Your task to perform on an android device: Search for "logitech g pro" on costco.com, select the first entry, add it to the cart, then select checkout. Image 0: 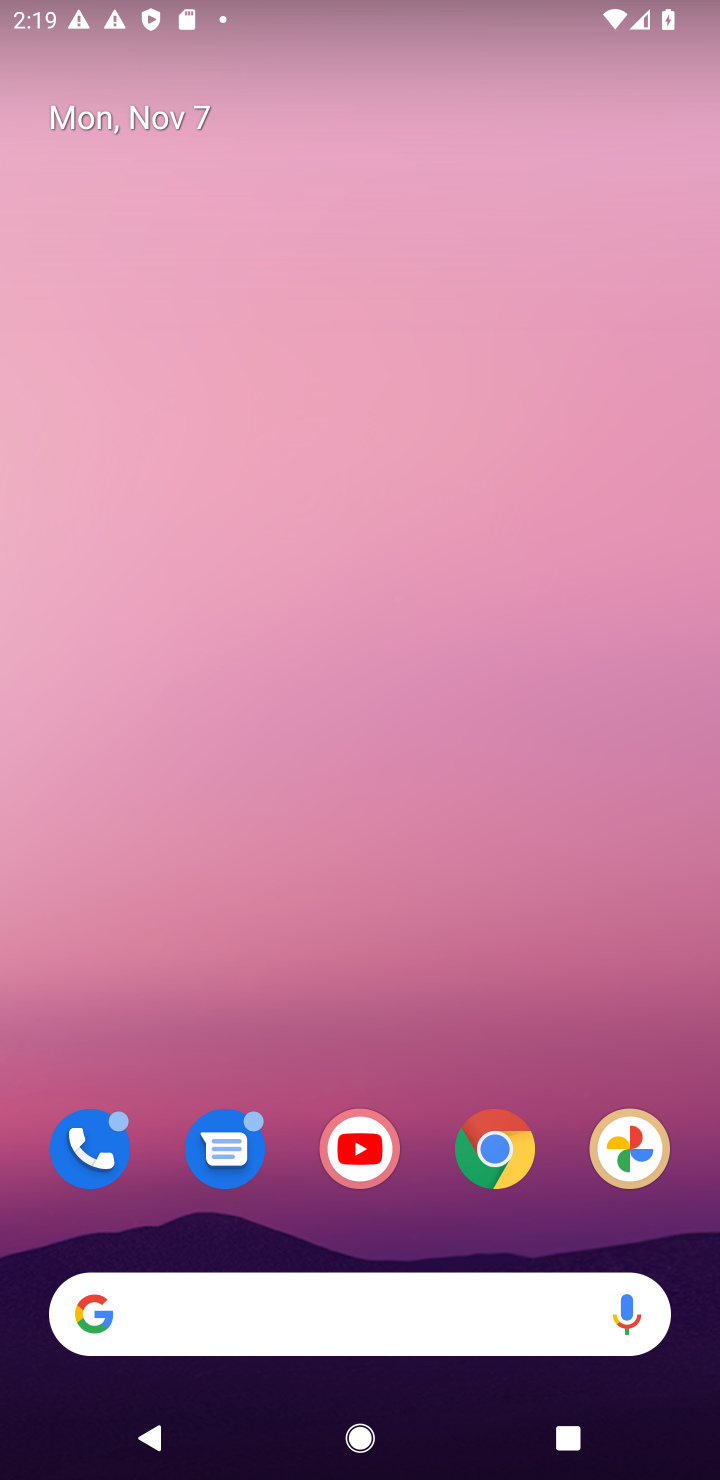
Step 0: click (510, 1144)
Your task to perform on an android device: Search for "logitech g pro" on costco.com, select the first entry, add it to the cart, then select checkout. Image 1: 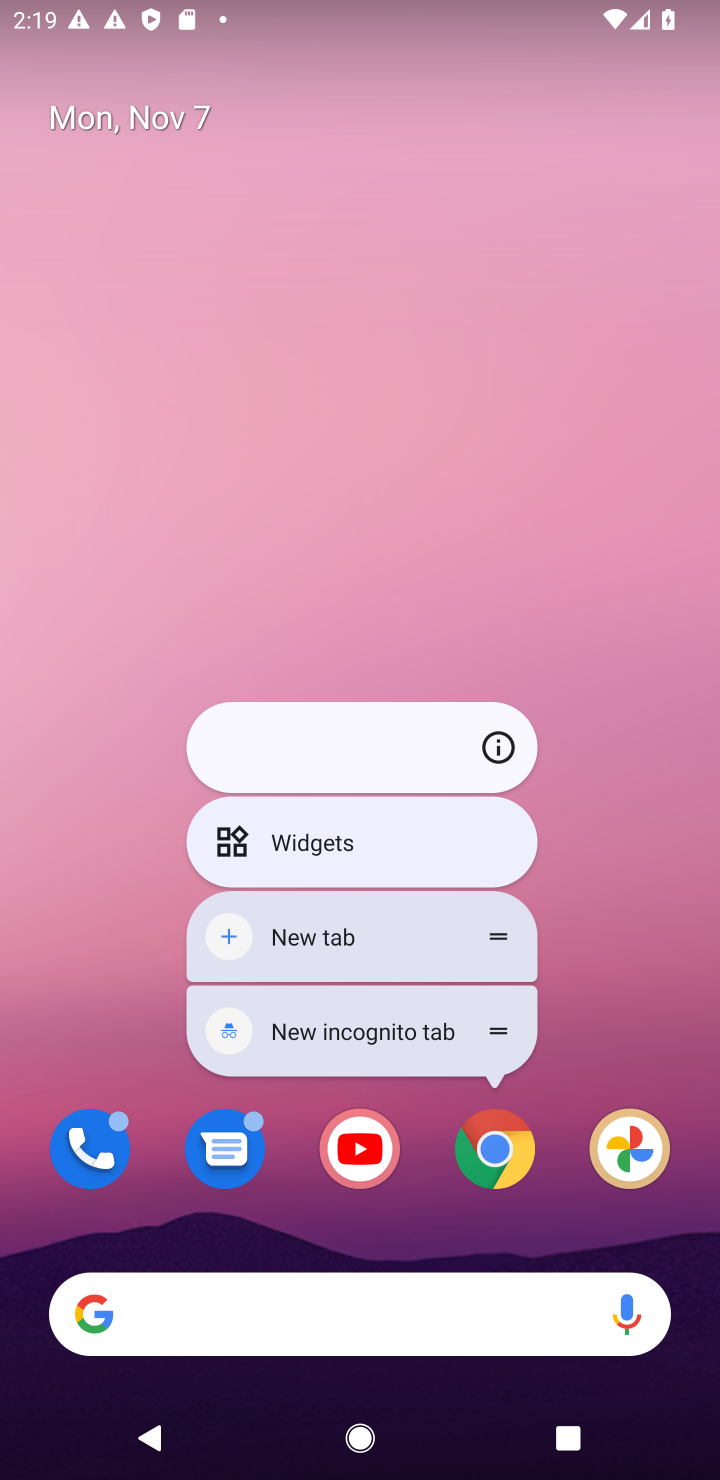
Step 1: click (506, 1144)
Your task to perform on an android device: Search for "logitech g pro" on costco.com, select the first entry, add it to the cart, then select checkout. Image 2: 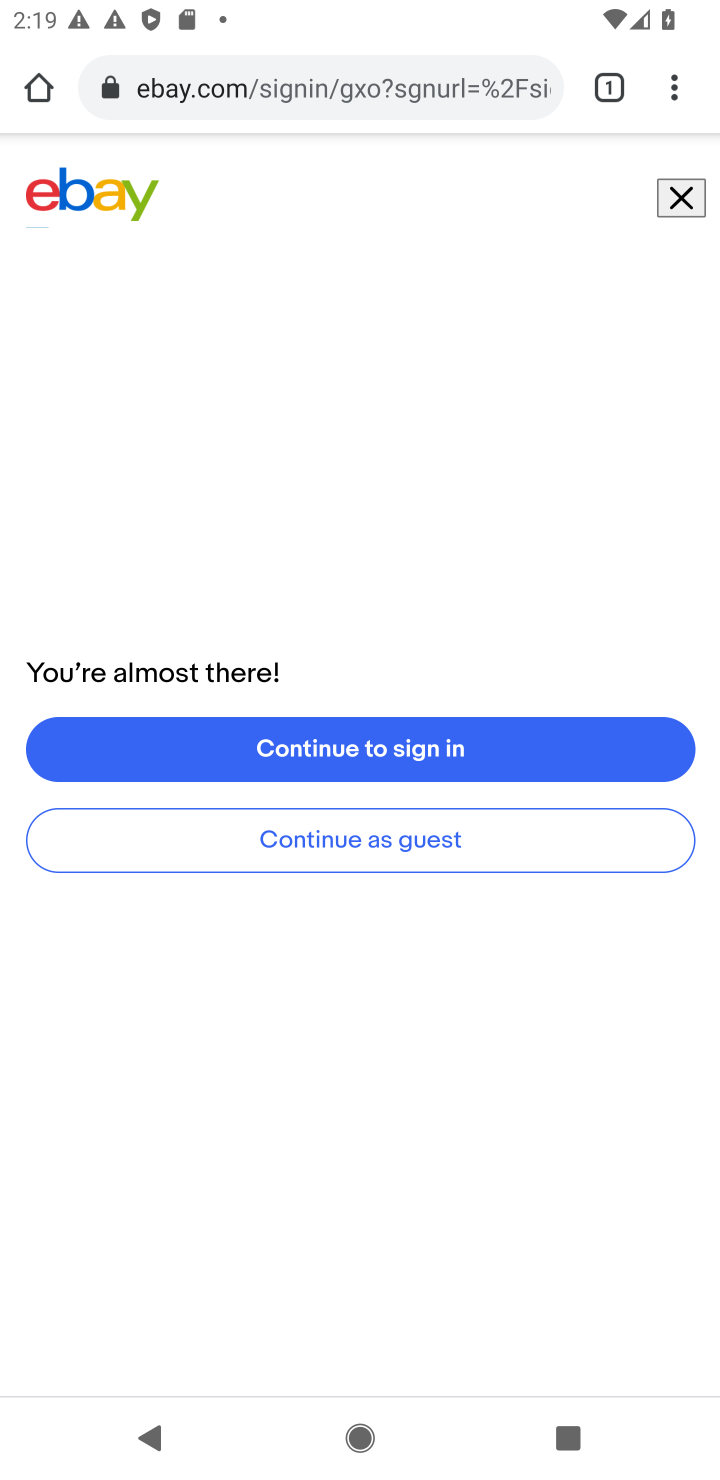
Step 2: click (326, 76)
Your task to perform on an android device: Search for "logitech g pro" on costco.com, select the first entry, add it to the cart, then select checkout. Image 3: 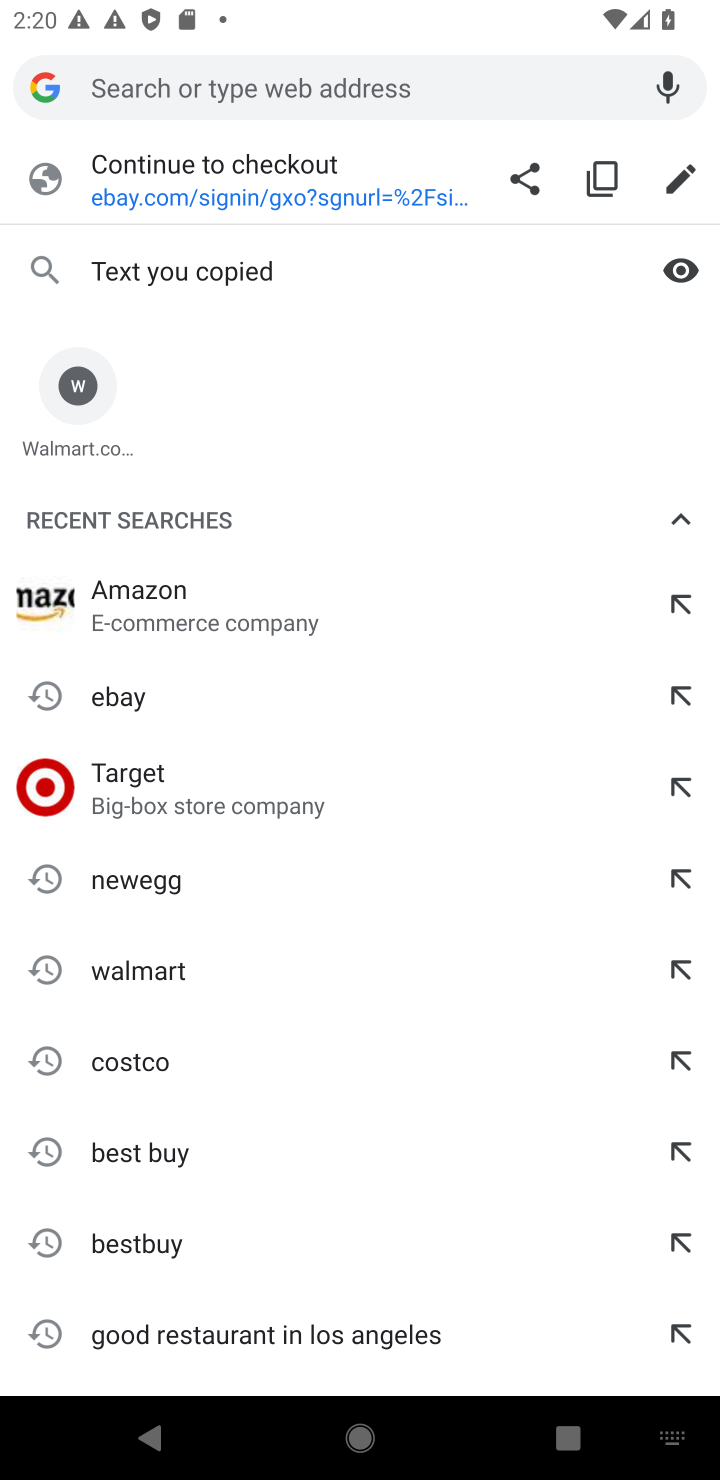
Step 3: type "costco"
Your task to perform on an android device: Search for "logitech g pro" on costco.com, select the first entry, add it to the cart, then select checkout. Image 4: 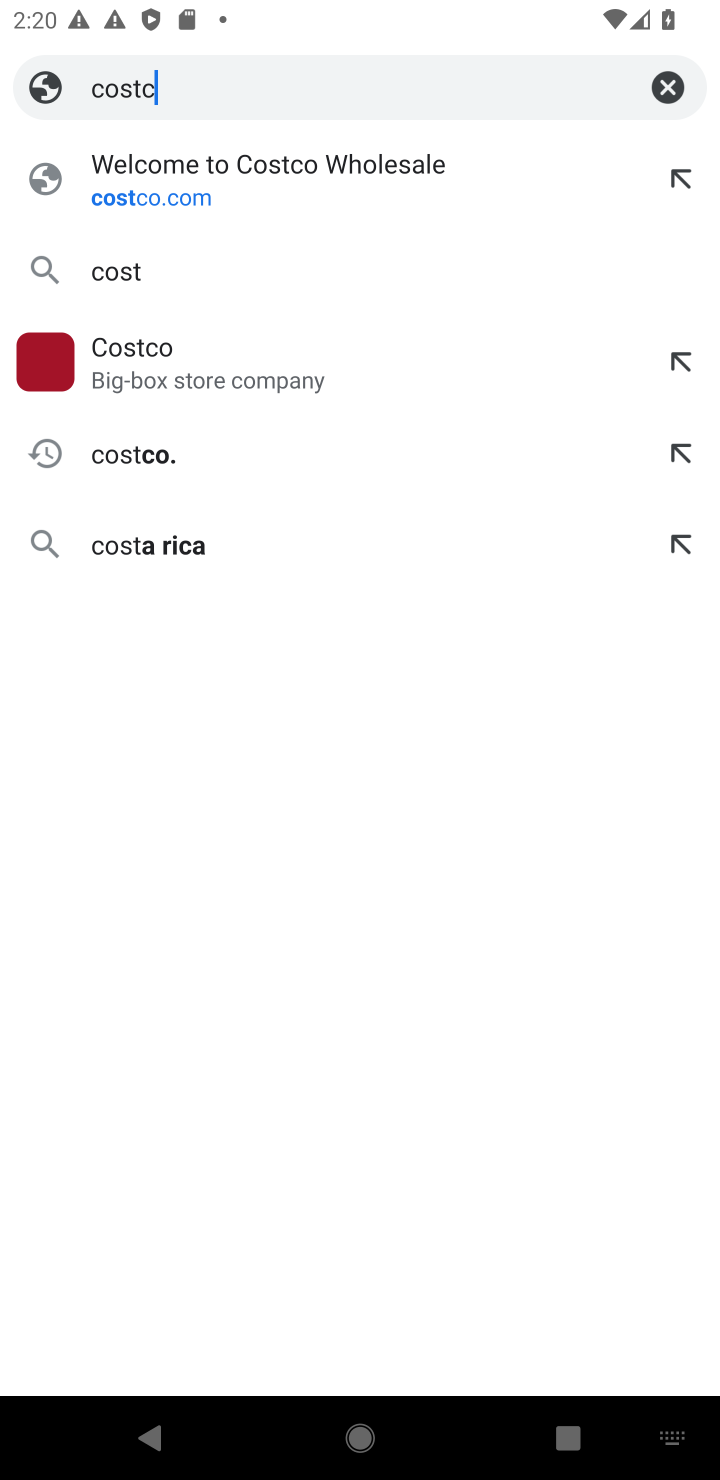
Step 4: type ""
Your task to perform on an android device: Search for "logitech g pro" on costco.com, select the first entry, add it to the cart, then select checkout. Image 5: 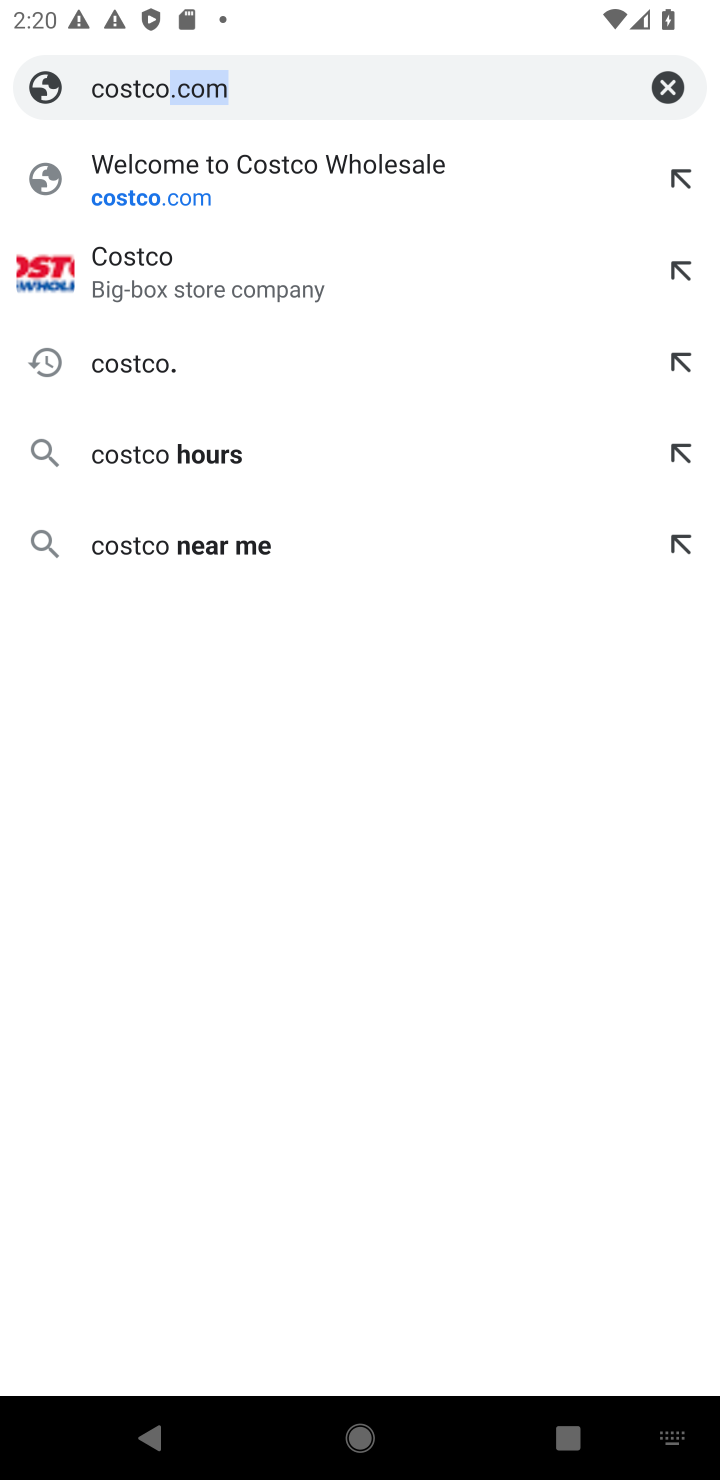
Step 5: click (116, 244)
Your task to perform on an android device: Search for "logitech g pro" on costco.com, select the first entry, add it to the cart, then select checkout. Image 6: 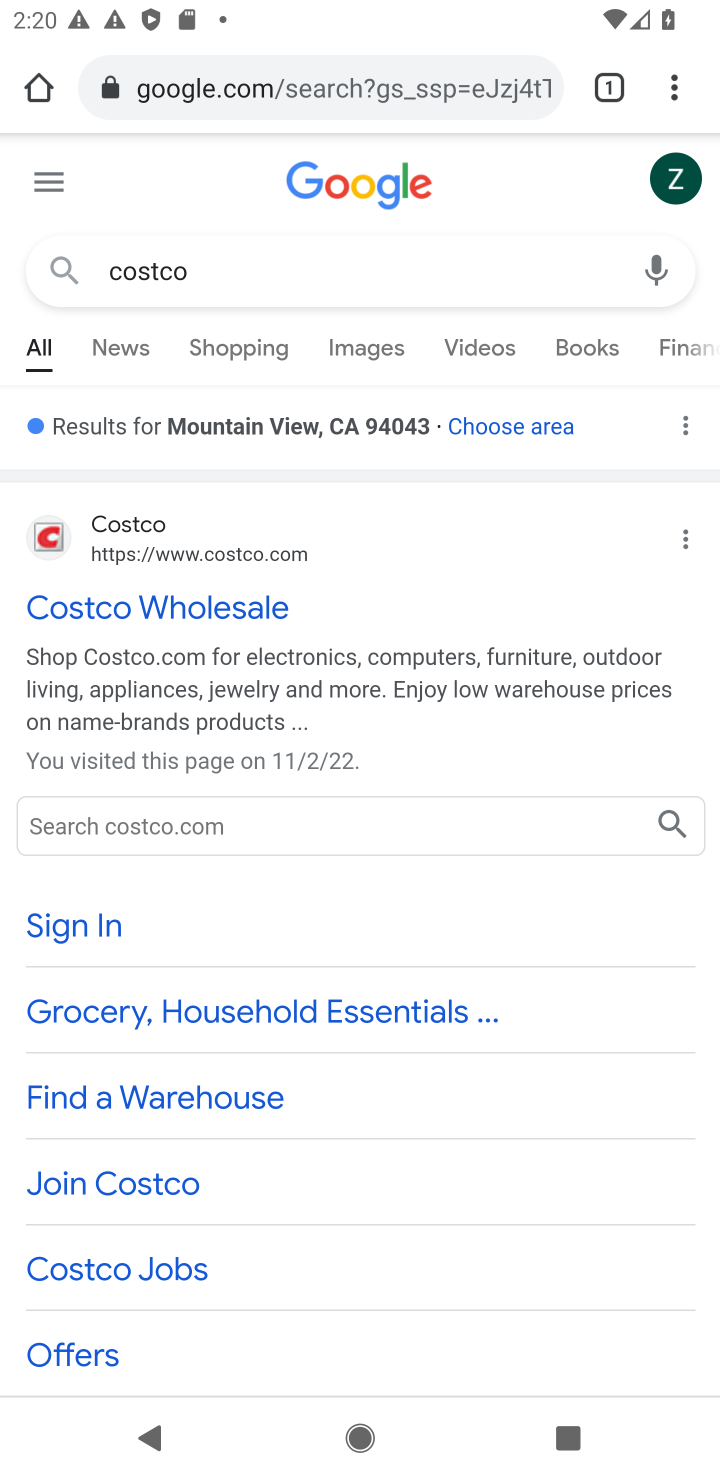
Step 6: click (90, 608)
Your task to perform on an android device: Search for "logitech g pro" on costco.com, select the first entry, add it to the cart, then select checkout. Image 7: 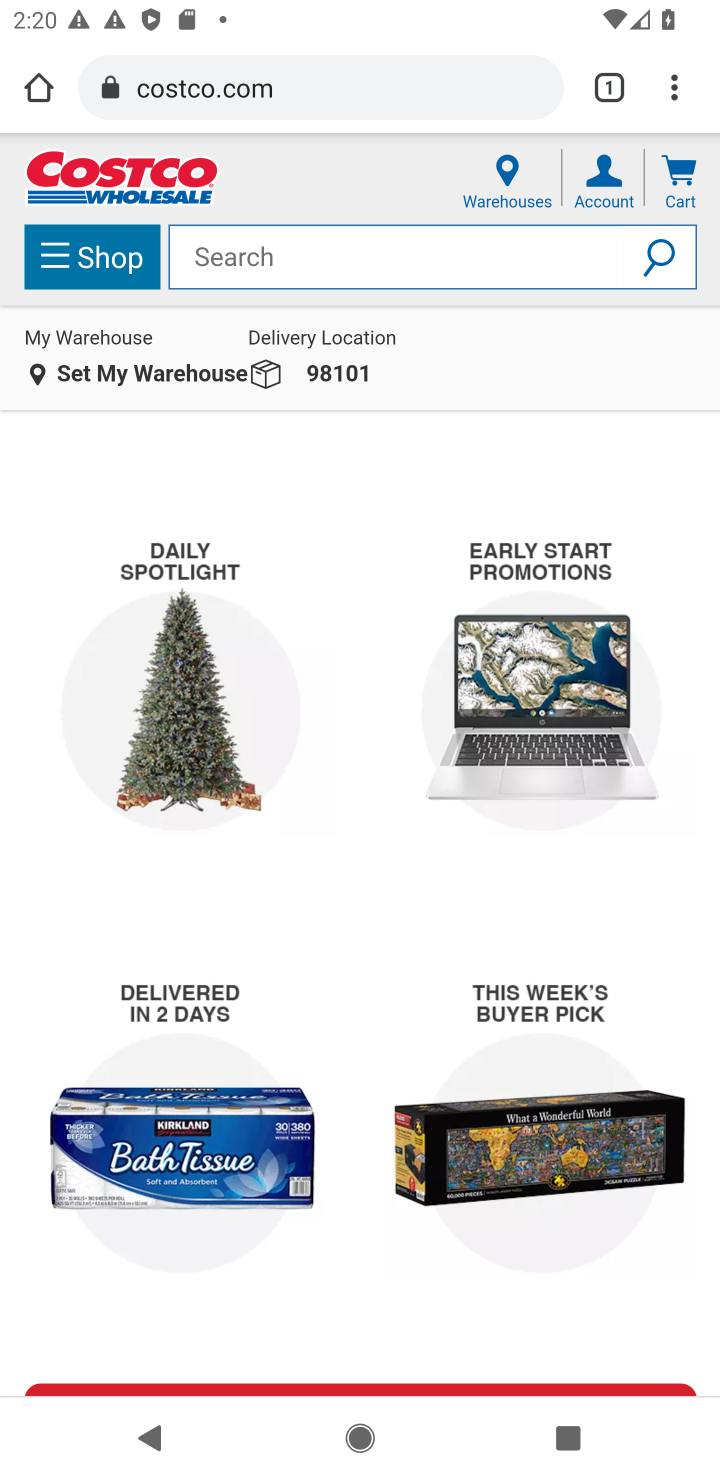
Step 7: click (302, 269)
Your task to perform on an android device: Search for "logitech g pro" on costco.com, select the first entry, add it to the cart, then select checkout. Image 8: 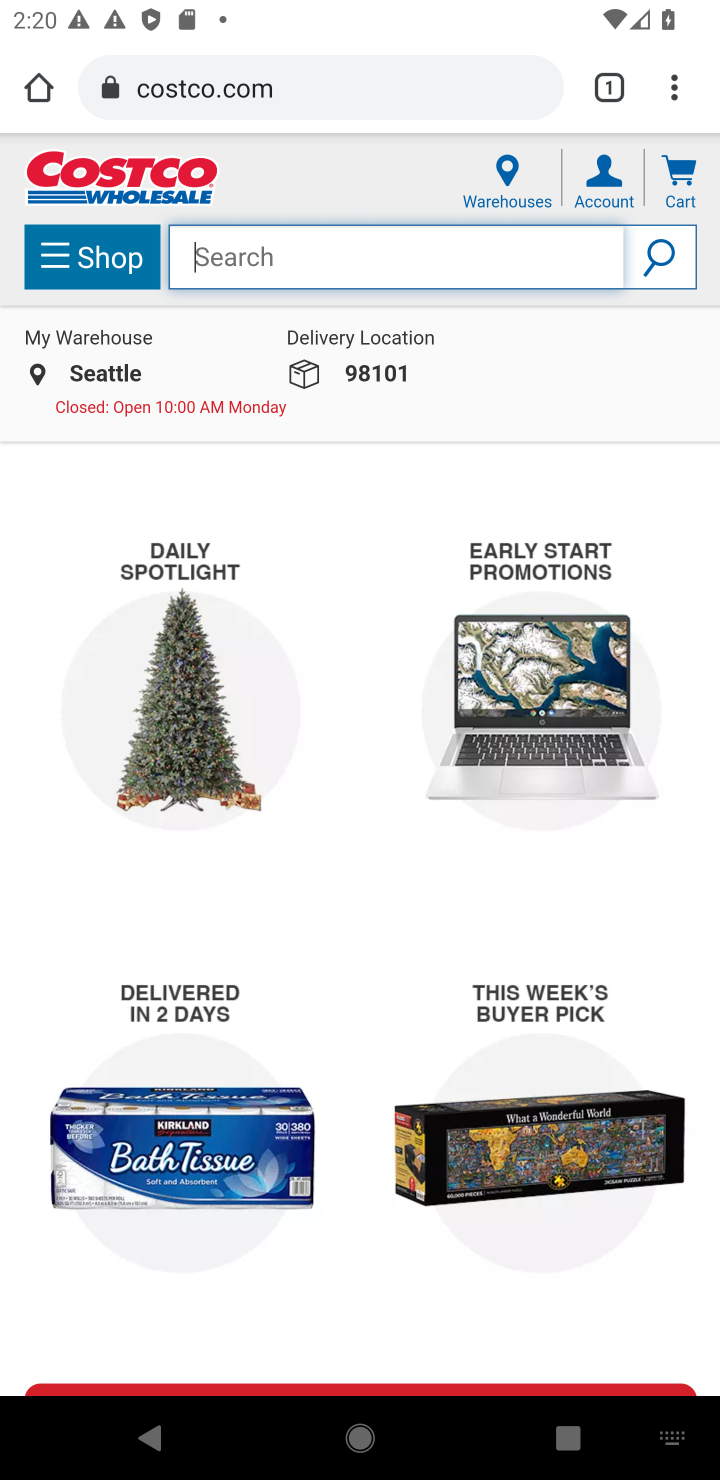
Step 8: type "logitech g pro"
Your task to perform on an android device: Search for "logitech g pro" on costco.com, select the first entry, add it to the cart, then select checkout. Image 9: 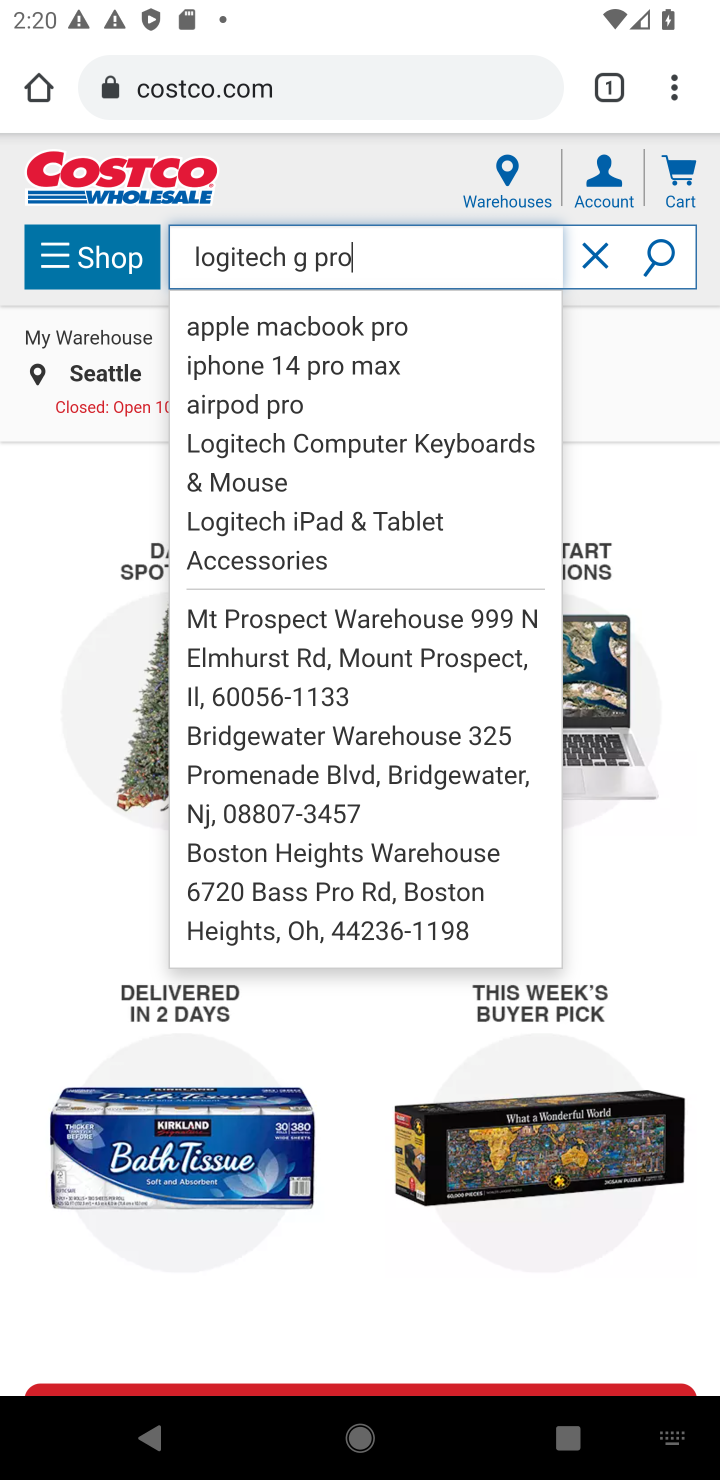
Step 9: click (255, 445)
Your task to perform on an android device: Search for "logitech g pro" on costco.com, select the first entry, add it to the cart, then select checkout. Image 10: 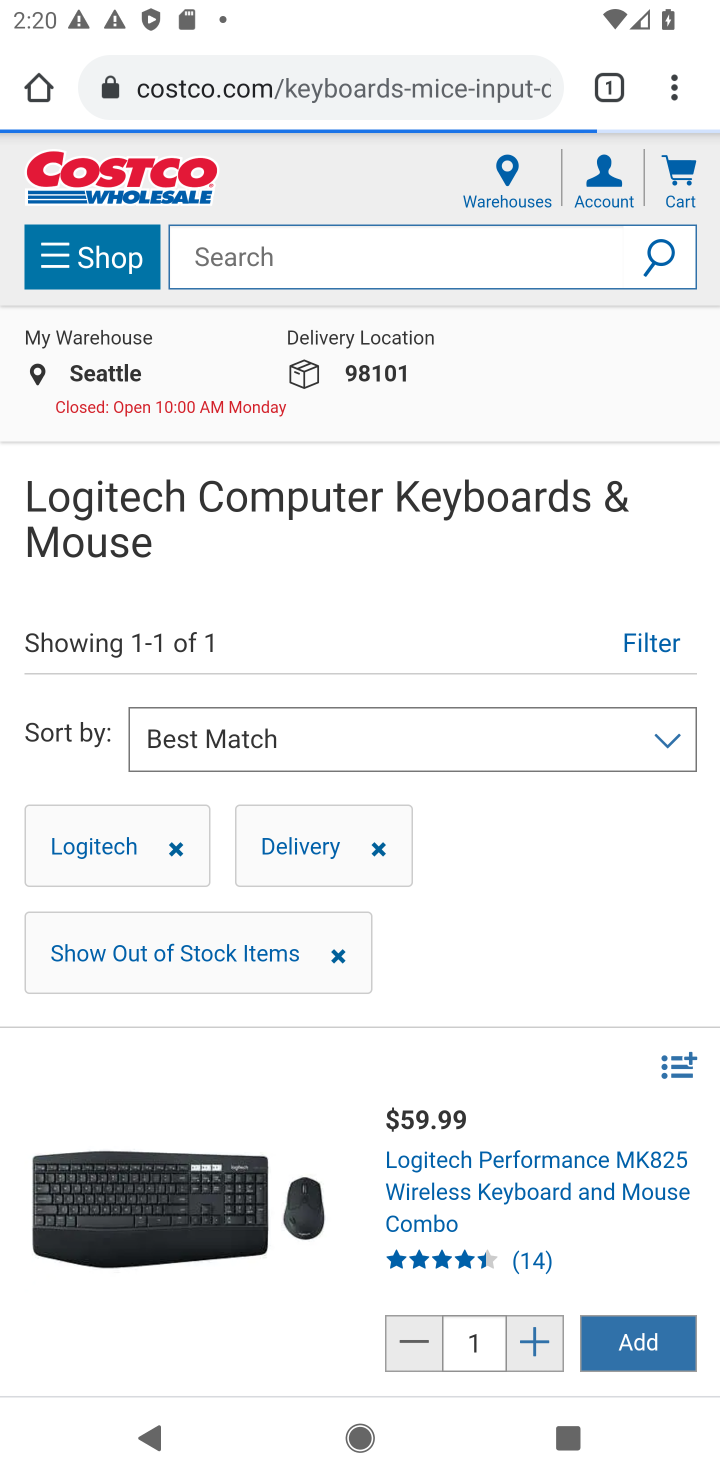
Step 10: drag from (400, 898) to (453, 206)
Your task to perform on an android device: Search for "logitech g pro" on costco.com, select the first entry, add it to the cart, then select checkout. Image 11: 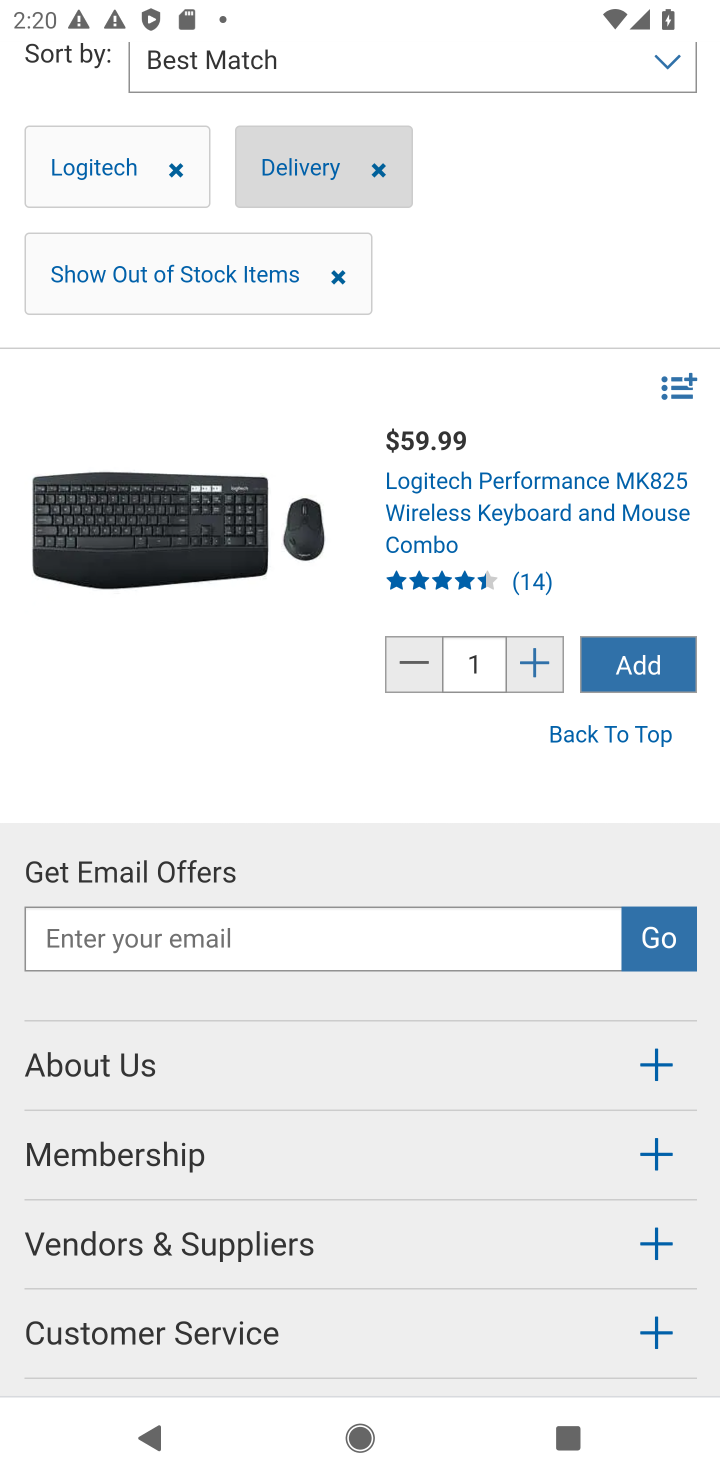
Step 11: click (473, 476)
Your task to perform on an android device: Search for "logitech g pro" on costco.com, select the first entry, add it to the cart, then select checkout. Image 12: 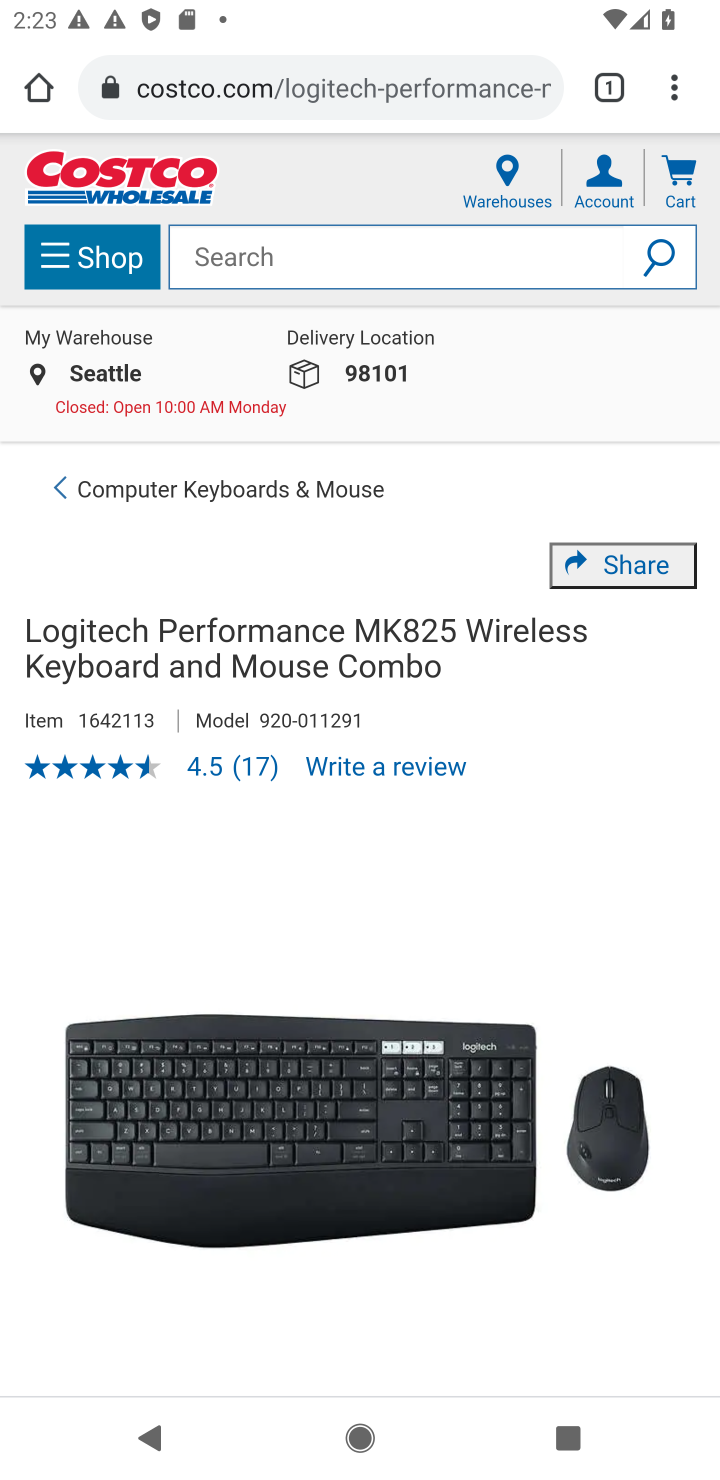
Step 12: drag from (194, 964) to (244, 217)
Your task to perform on an android device: Search for "logitech g pro" on costco.com, select the first entry, add it to the cart, then select checkout. Image 13: 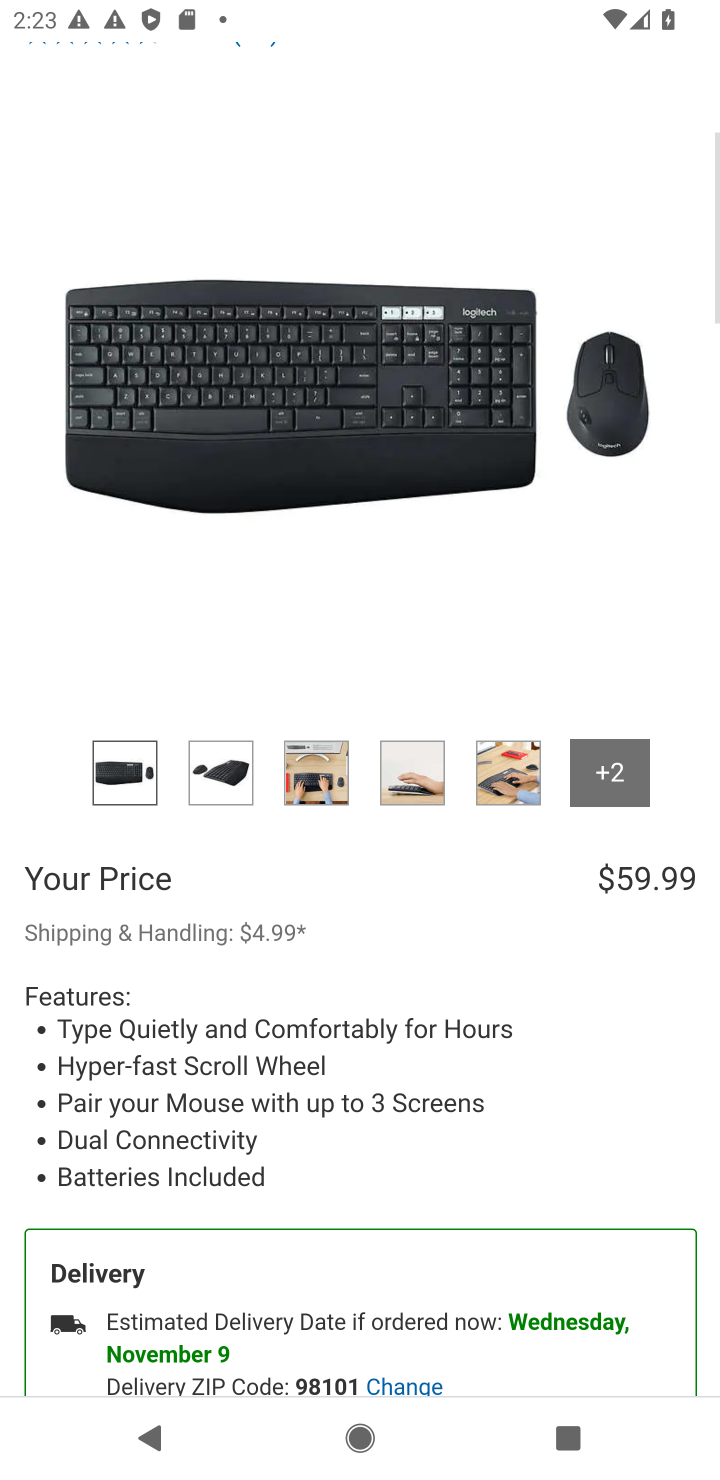
Step 13: drag from (236, 1035) to (271, 499)
Your task to perform on an android device: Search for "logitech g pro" on costco.com, select the first entry, add it to the cart, then select checkout. Image 14: 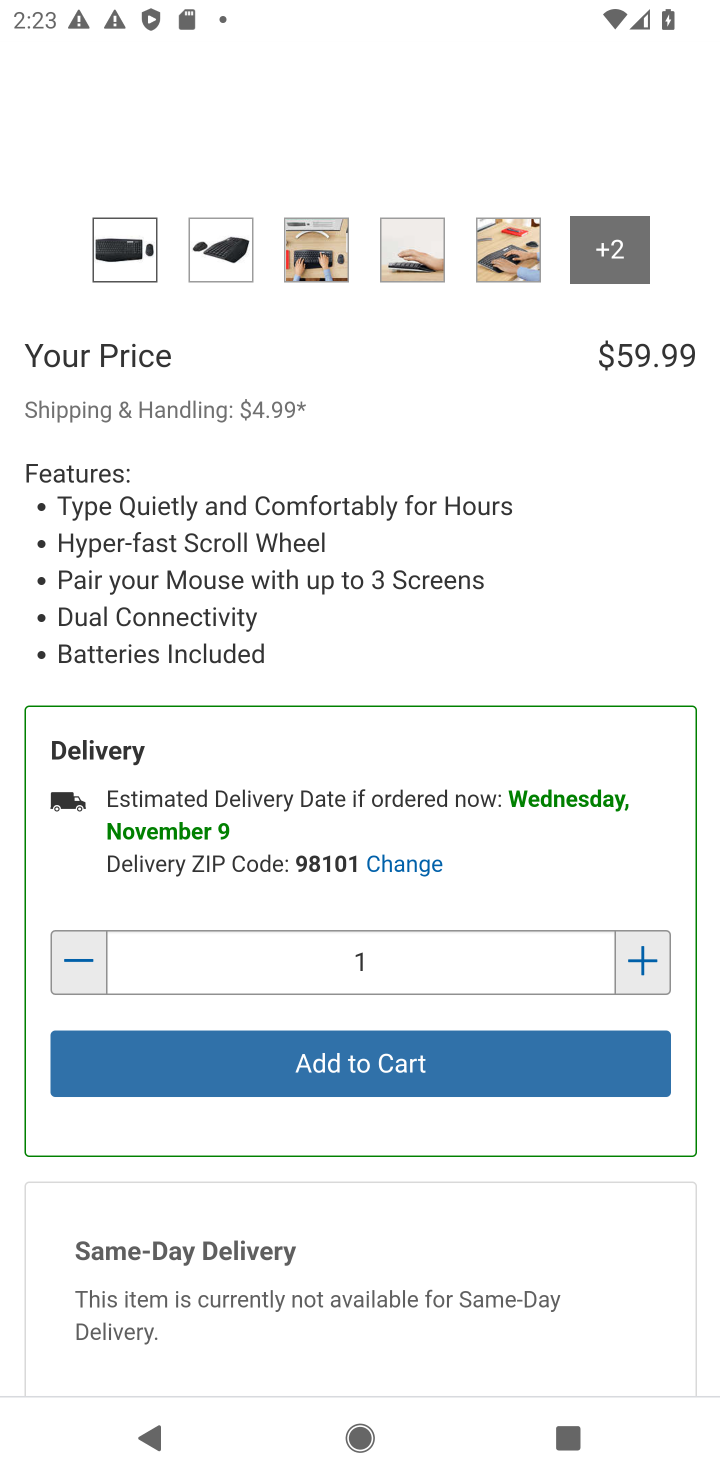
Step 14: click (431, 1070)
Your task to perform on an android device: Search for "logitech g pro" on costco.com, select the first entry, add it to the cart, then select checkout. Image 15: 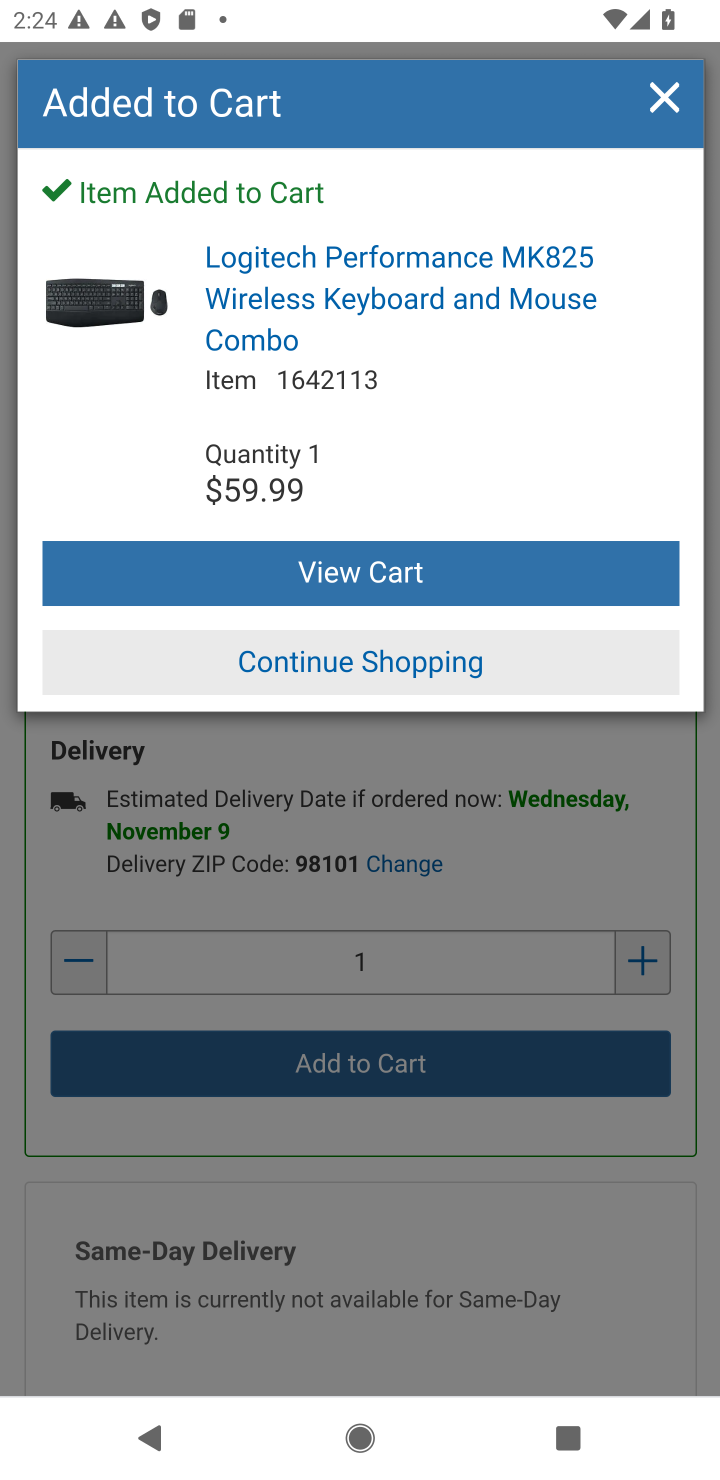
Step 15: click (300, 571)
Your task to perform on an android device: Search for "logitech g pro" on costco.com, select the first entry, add it to the cart, then select checkout. Image 16: 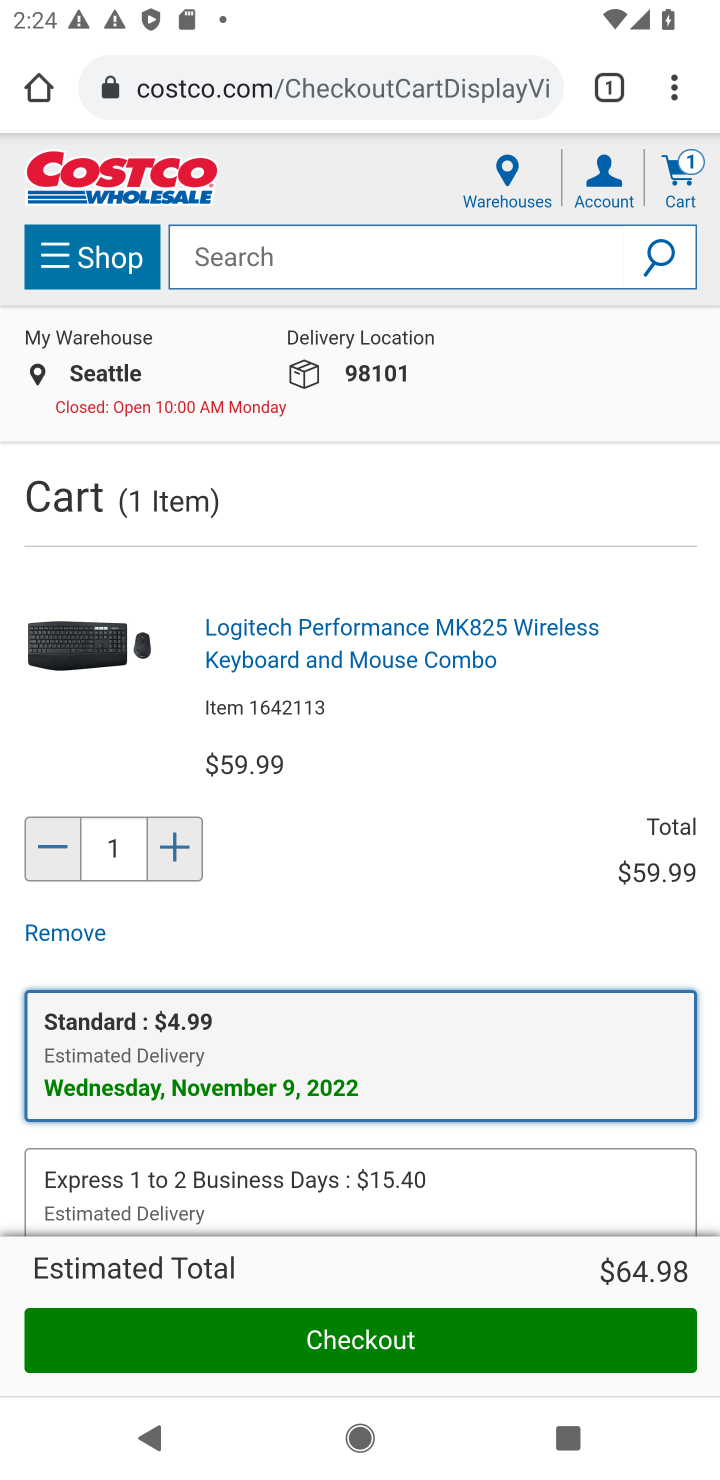
Step 16: click (379, 1328)
Your task to perform on an android device: Search for "logitech g pro" on costco.com, select the first entry, add it to the cart, then select checkout. Image 17: 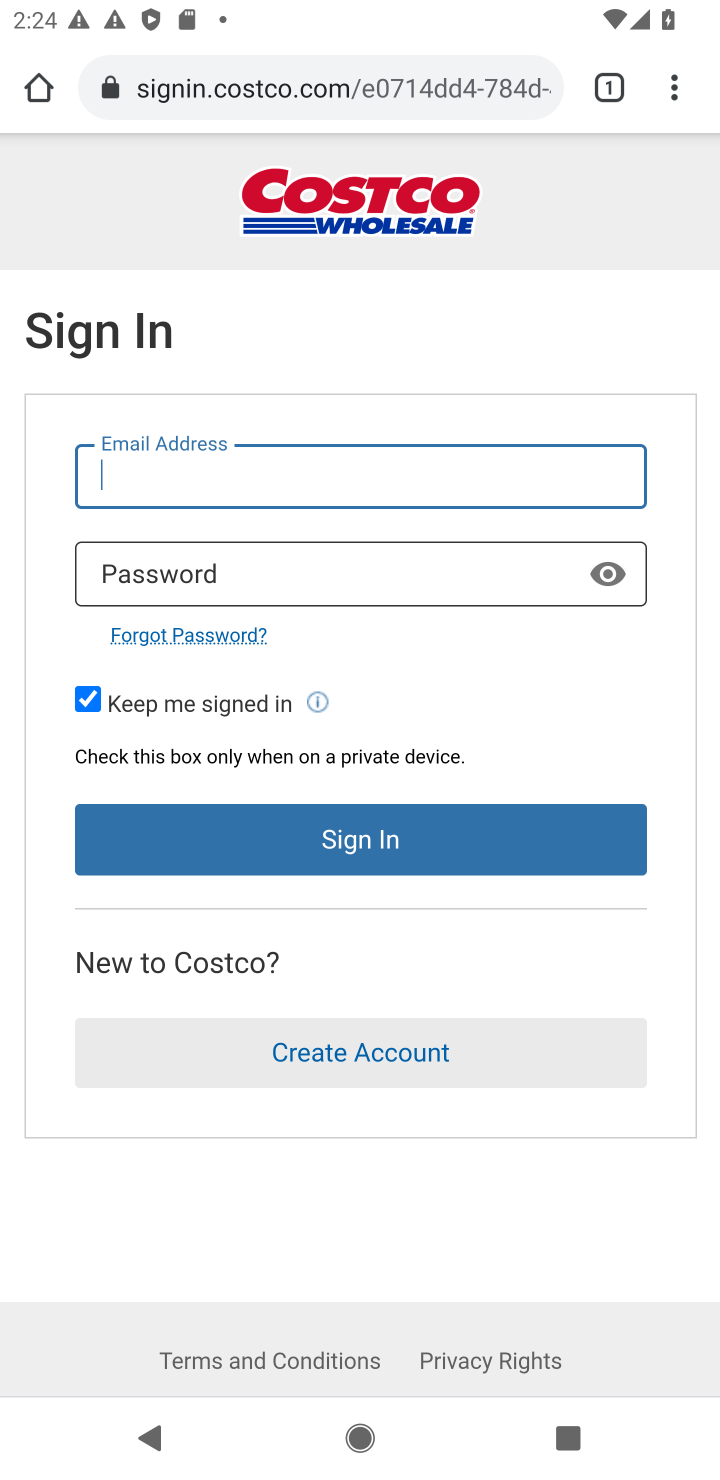
Step 17: task complete